Your task to perform on an android device: When is my next meeting? Image 0: 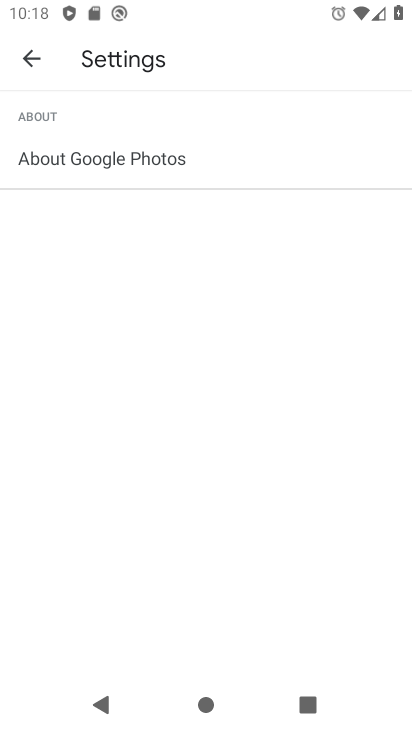
Step 0: press home button
Your task to perform on an android device: When is my next meeting? Image 1: 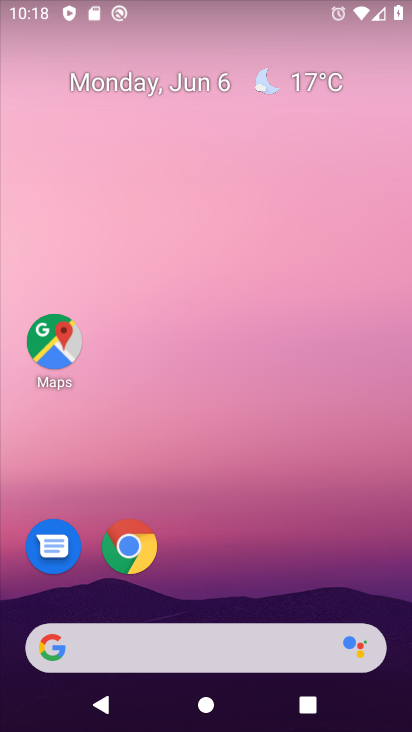
Step 1: drag from (230, 567) to (232, 94)
Your task to perform on an android device: When is my next meeting? Image 2: 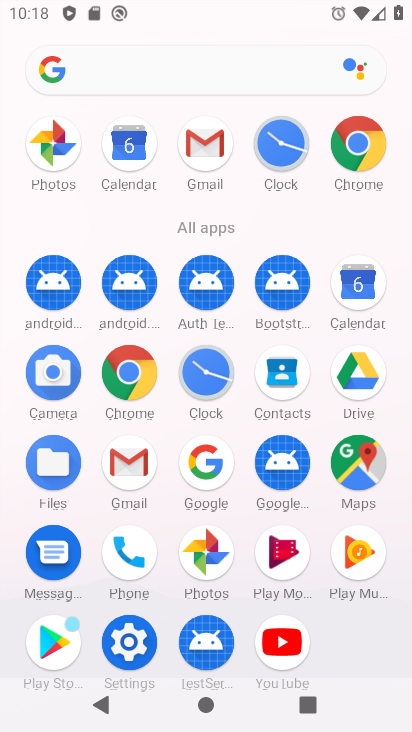
Step 2: click (366, 292)
Your task to perform on an android device: When is my next meeting? Image 3: 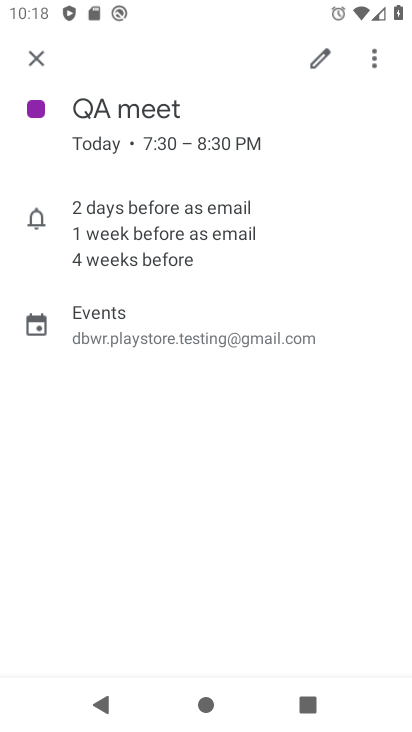
Step 3: task complete